Your task to perform on an android device: turn smart compose on in the gmail app Image 0: 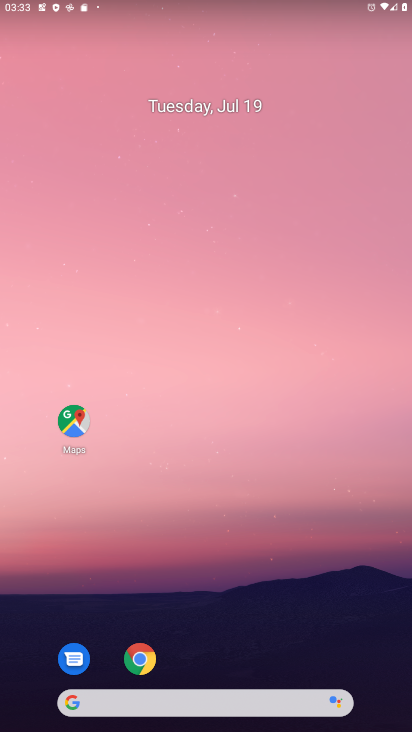
Step 0: press home button
Your task to perform on an android device: turn smart compose on in the gmail app Image 1: 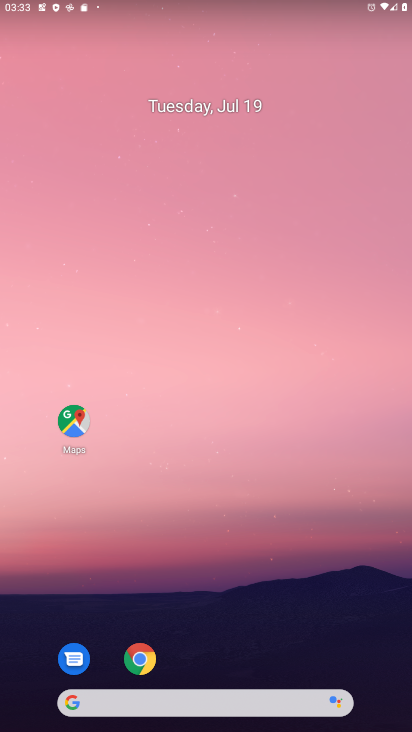
Step 1: drag from (240, 677) to (345, 54)
Your task to perform on an android device: turn smart compose on in the gmail app Image 2: 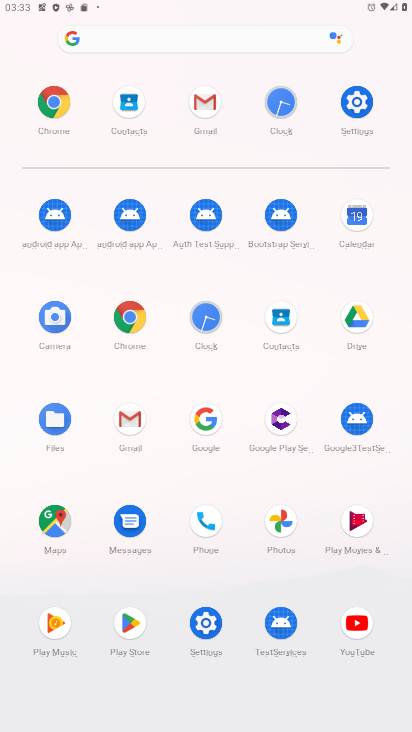
Step 2: click (119, 451)
Your task to perform on an android device: turn smart compose on in the gmail app Image 3: 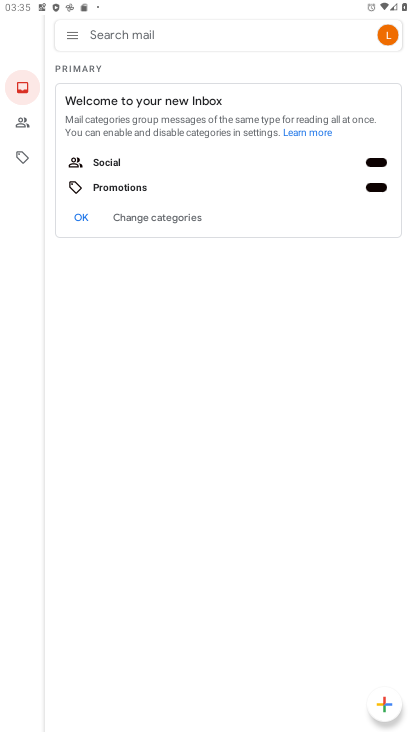
Step 3: click (69, 37)
Your task to perform on an android device: turn smart compose on in the gmail app Image 4: 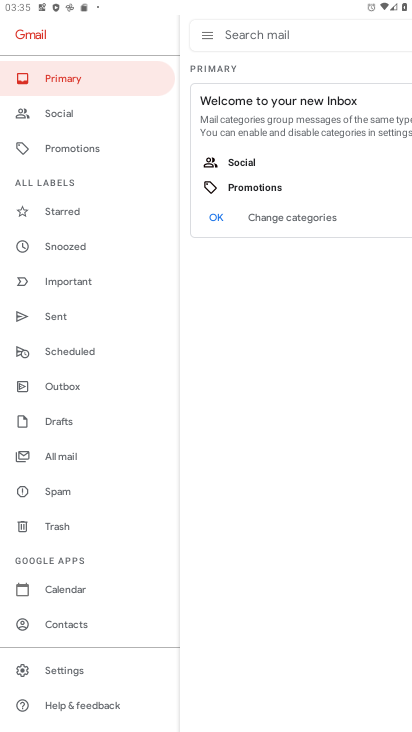
Step 4: click (57, 661)
Your task to perform on an android device: turn smart compose on in the gmail app Image 5: 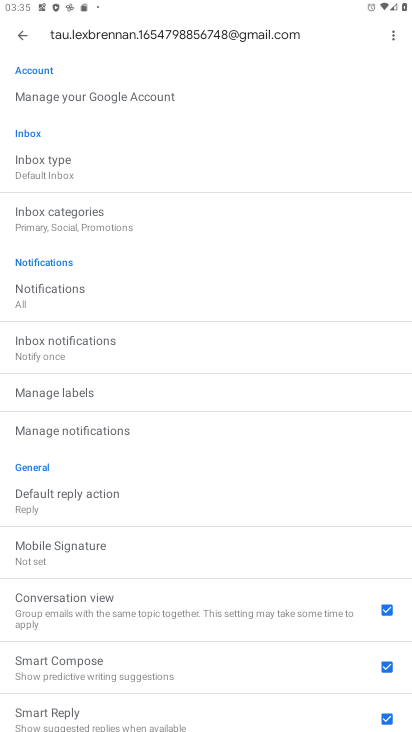
Step 5: task complete